Your task to perform on an android device: set an alarm Image 0: 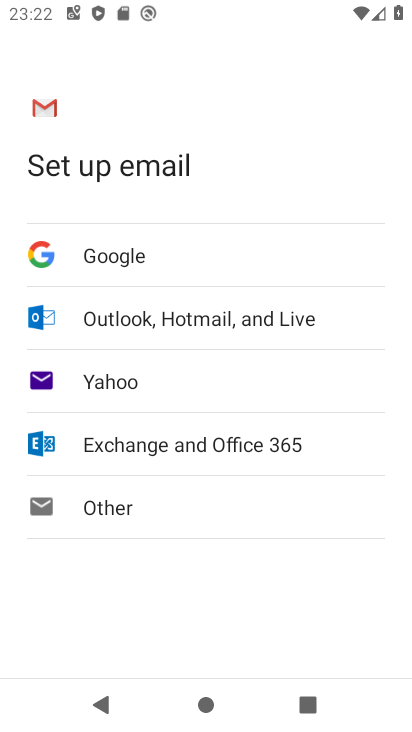
Step 0: press home button
Your task to perform on an android device: set an alarm Image 1: 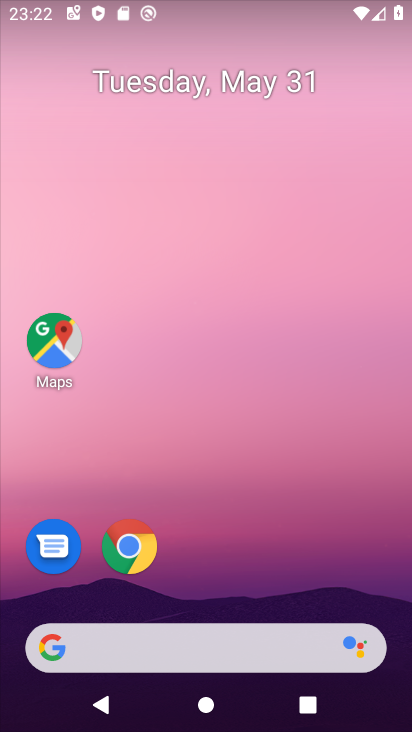
Step 1: drag from (241, 560) to (224, 147)
Your task to perform on an android device: set an alarm Image 2: 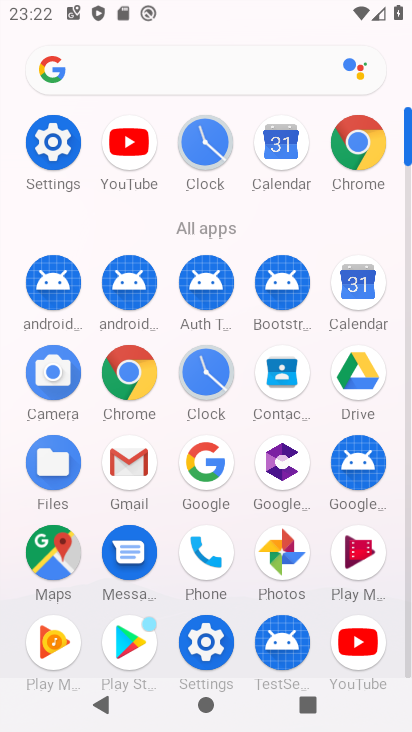
Step 2: click (205, 162)
Your task to perform on an android device: set an alarm Image 3: 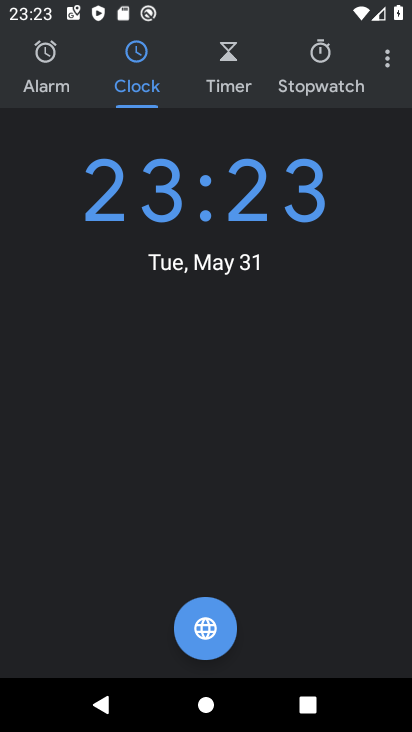
Step 3: click (30, 80)
Your task to perform on an android device: set an alarm Image 4: 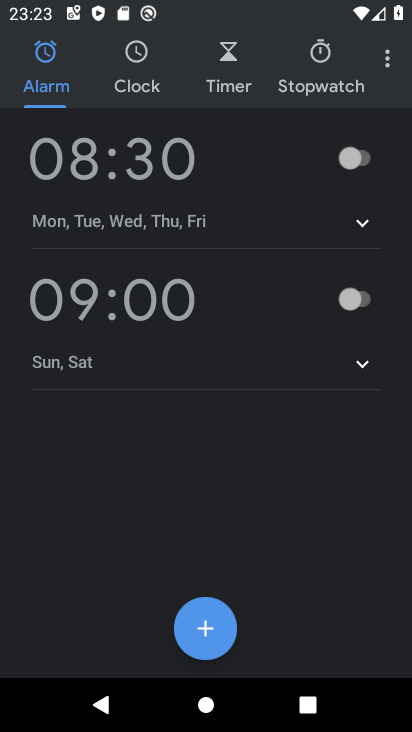
Step 4: click (209, 632)
Your task to perform on an android device: set an alarm Image 5: 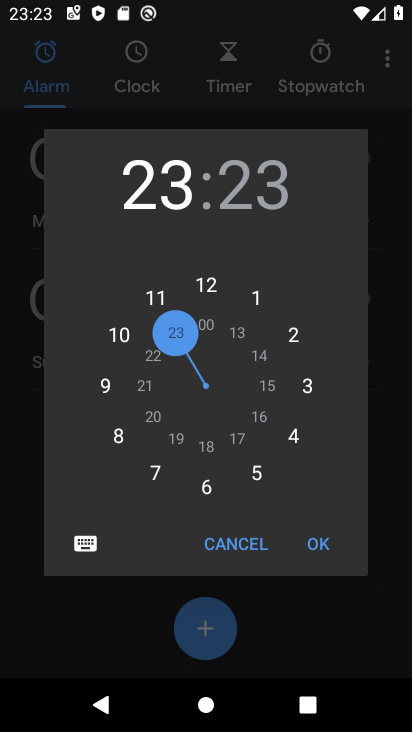
Step 5: click (314, 545)
Your task to perform on an android device: set an alarm Image 6: 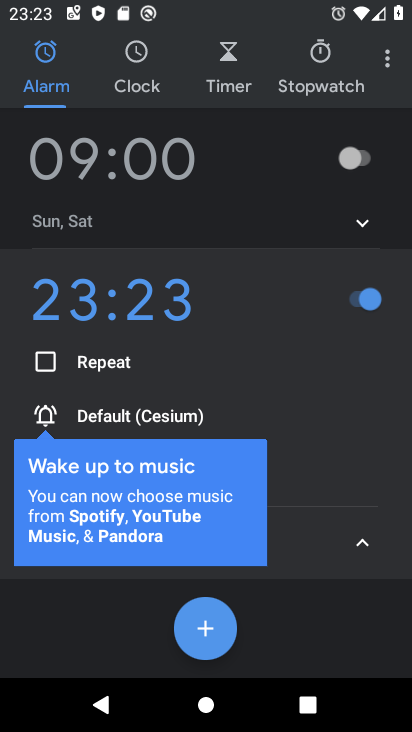
Step 6: task complete